Your task to perform on an android device: Set an alarm for 4pm Image 0: 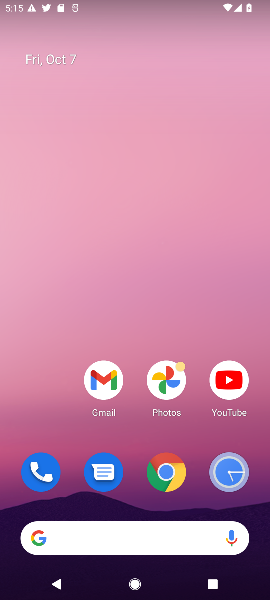
Step 0: click (155, 436)
Your task to perform on an android device: Set an alarm for 4pm Image 1: 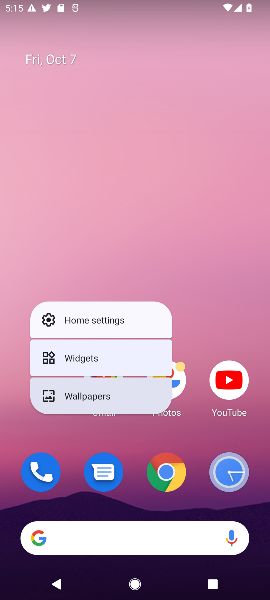
Step 1: click (232, 465)
Your task to perform on an android device: Set an alarm for 4pm Image 2: 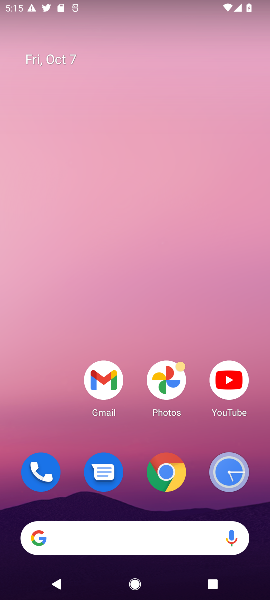
Step 2: click (229, 474)
Your task to perform on an android device: Set an alarm for 4pm Image 3: 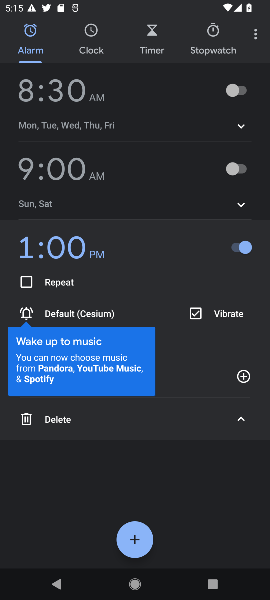
Step 3: click (127, 538)
Your task to perform on an android device: Set an alarm for 4pm Image 4: 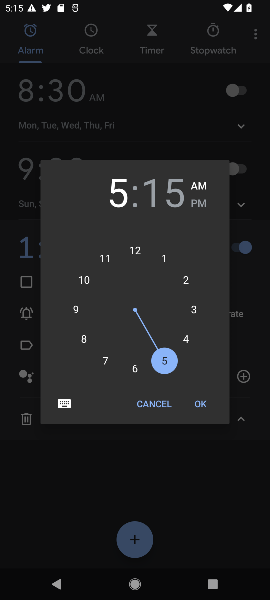
Step 4: click (201, 202)
Your task to perform on an android device: Set an alarm for 4pm Image 5: 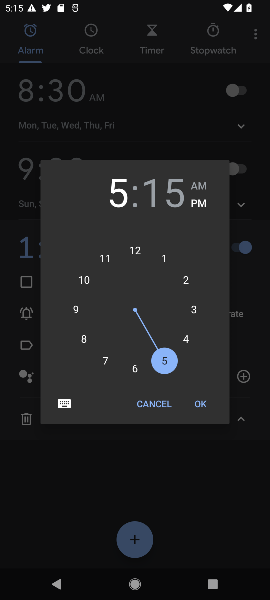
Step 5: click (183, 338)
Your task to perform on an android device: Set an alarm for 4pm Image 6: 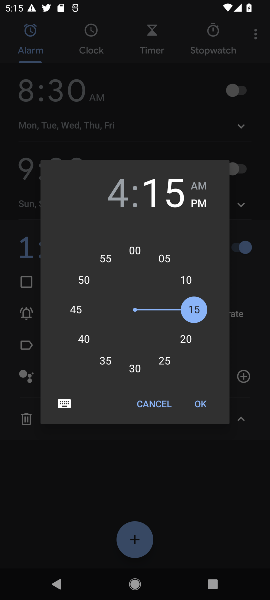
Step 6: click (136, 256)
Your task to perform on an android device: Set an alarm for 4pm Image 7: 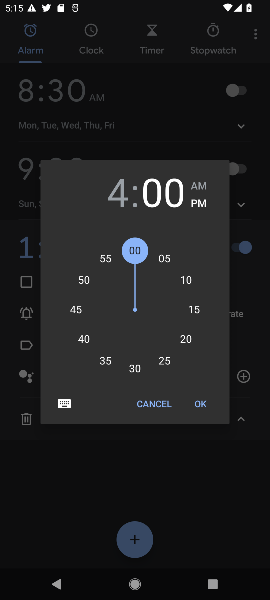
Step 7: click (201, 406)
Your task to perform on an android device: Set an alarm for 4pm Image 8: 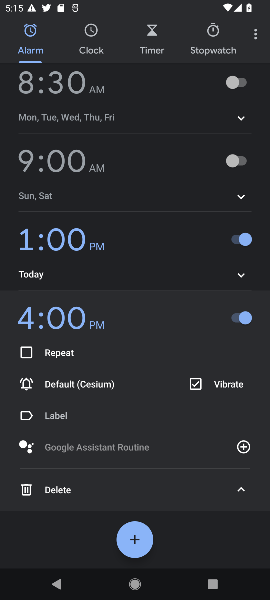
Step 8: task complete